Your task to perform on an android device: Open Chrome and go to settings Image 0: 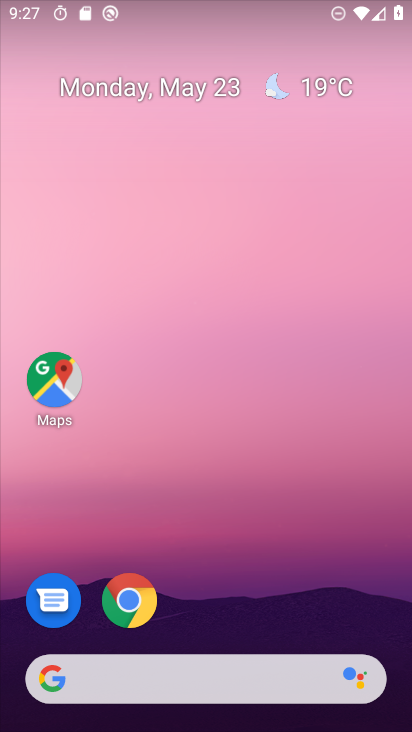
Step 0: click (126, 608)
Your task to perform on an android device: Open Chrome and go to settings Image 1: 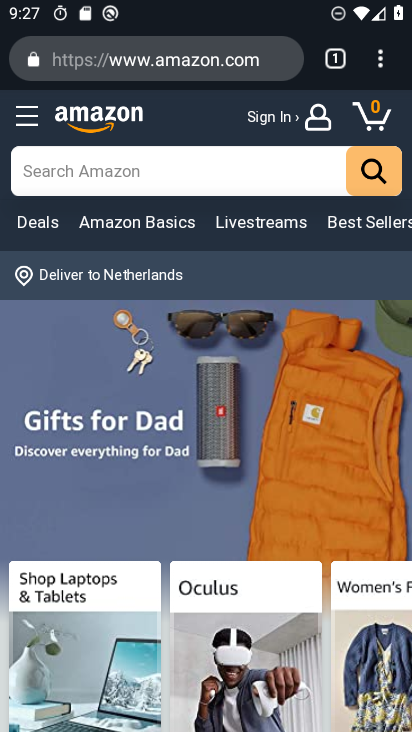
Step 1: click (379, 61)
Your task to perform on an android device: Open Chrome and go to settings Image 2: 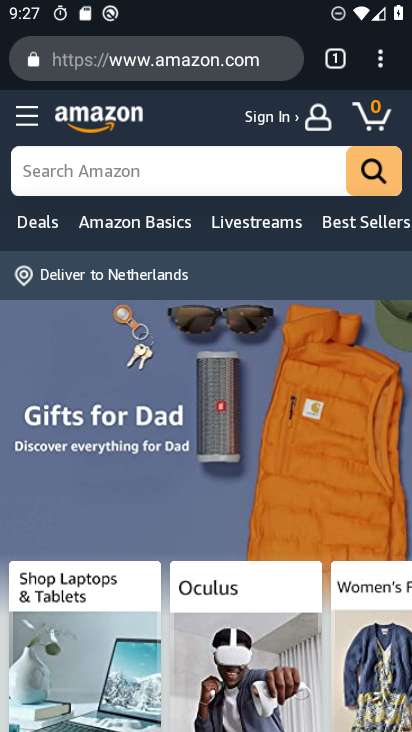
Step 2: click (376, 66)
Your task to perform on an android device: Open Chrome and go to settings Image 3: 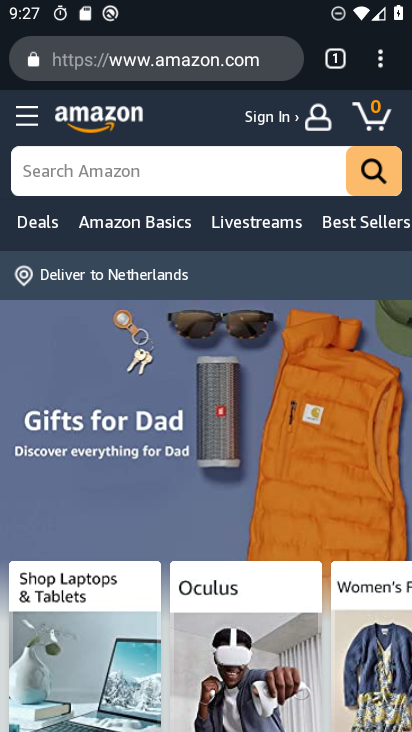
Step 3: click (394, 67)
Your task to perform on an android device: Open Chrome and go to settings Image 4: 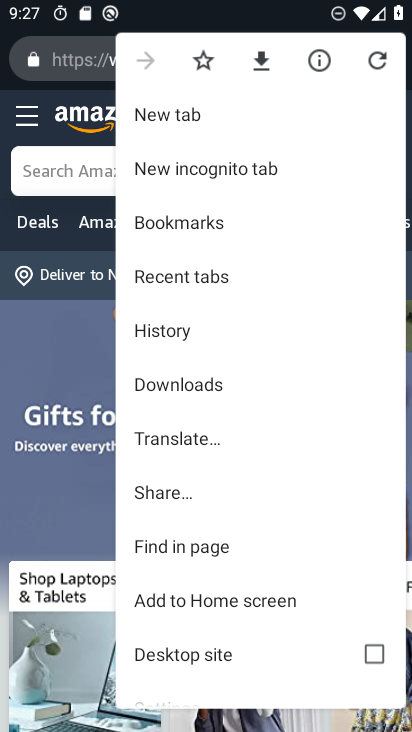
Step 4: drag from (215, 656) to (348, 90)
Your task to perform on an android device: Open Chrome and go to settings Image 5: 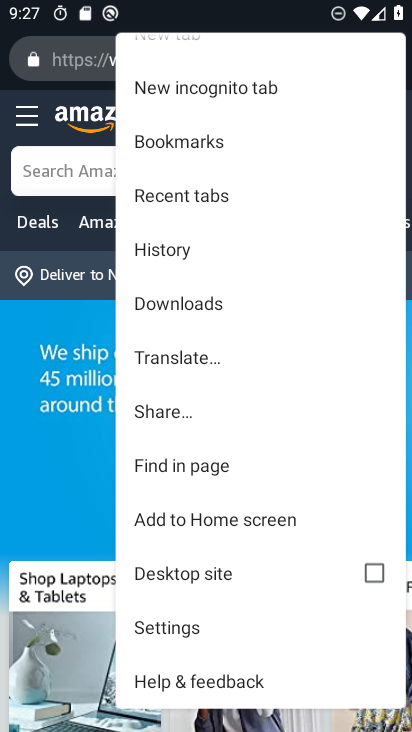
Step 5: click (170, 615)
Your task to perform on an android device: Open Chrome and go to settings Image 6: 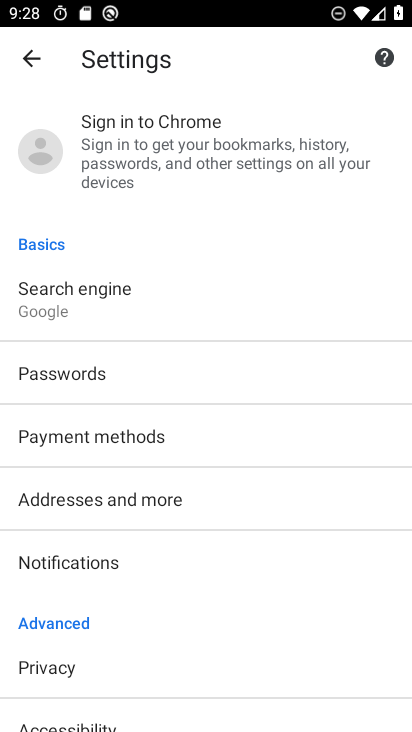
Step 6: task complete